Your task to perform on an android device: Open Android settings Image 0: 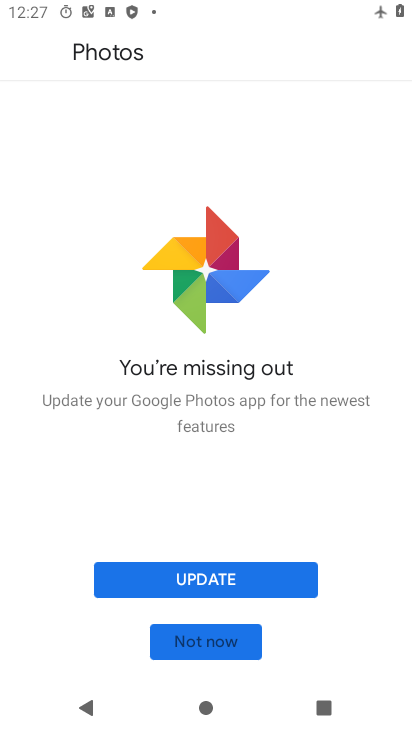
Step 0: press home button
Your task to perform on an android device: Open Android settings Image 1: 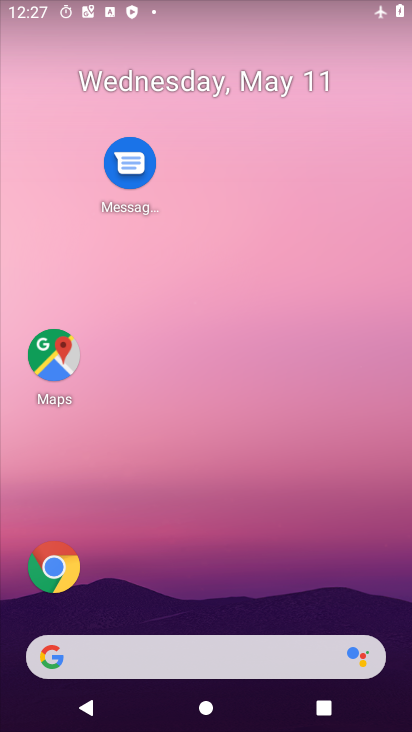
Step 1: drag from (254, 594) to (278, 77)
Your task to perform on an android device: Open Android settings Image 2: 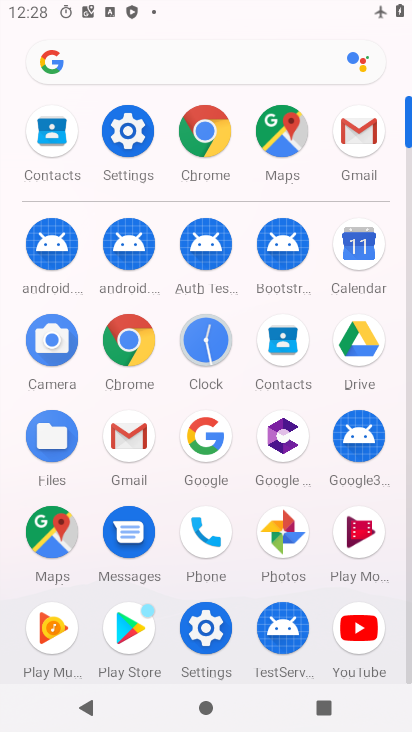
Step 2: click (193, 628)
Your task to perform on an android device: Open Android settings Image 3: 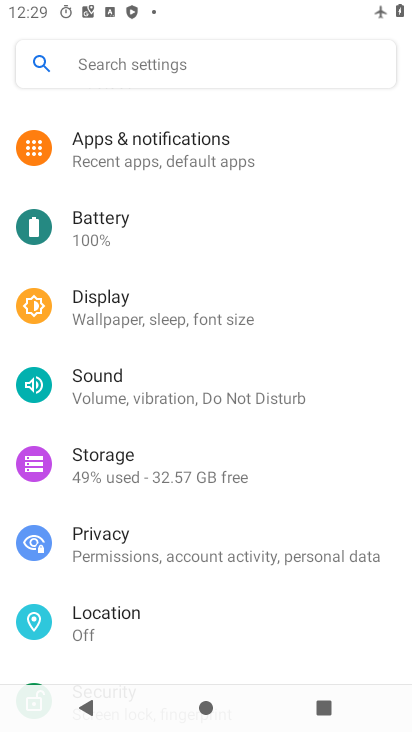
Step 3: task complete